Your task to perform on an android device: turn off airplane mode Image 0: 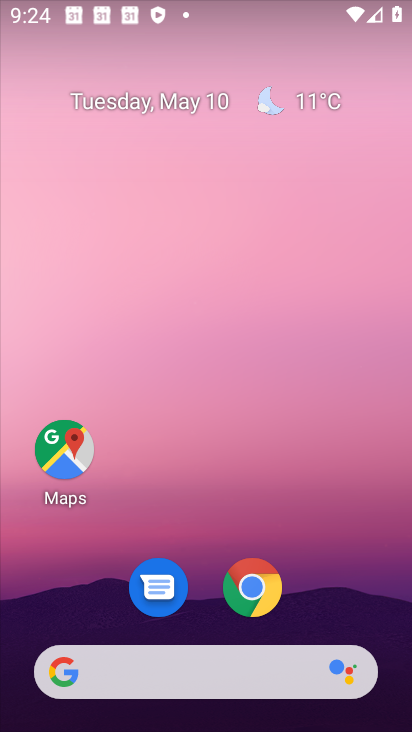
Step 0: drag from (330, 538) to (331, 158)
Your task to perform on an android device: turn off airplane mode Image 1: 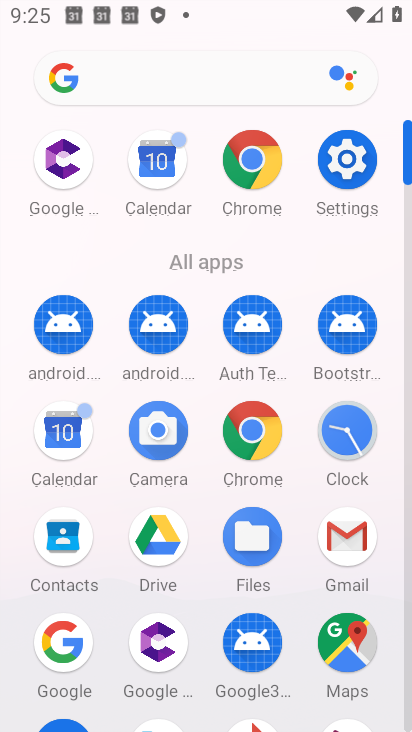
Step 1: click (361, 181)
Your task to perform on an android device: turn off airplane mode Image 2: 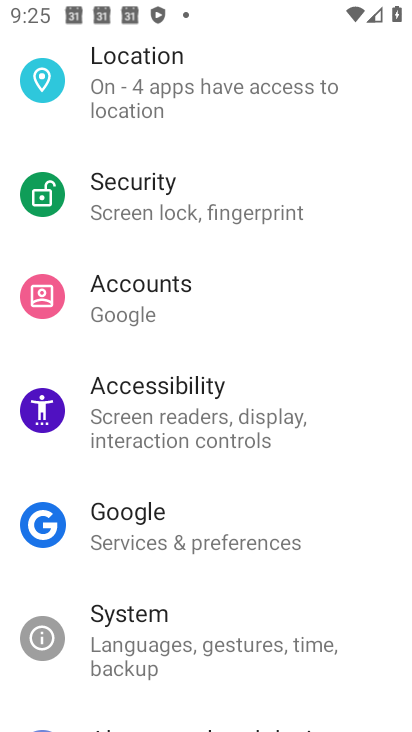
Step 2: drag from (327, 171) to (295, 575)
Your task to perform on an android device: turn off airplane mode Image 3: 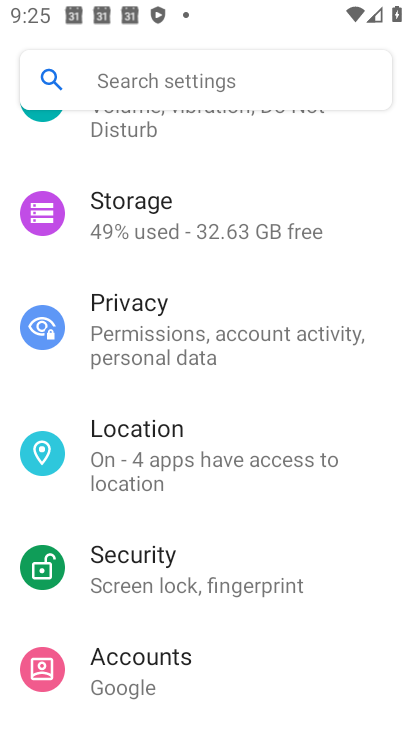
Step 3: drag from (322, 227) to (301, 635)
Your task to perform on an android device: turn off airplane mode Image 4: 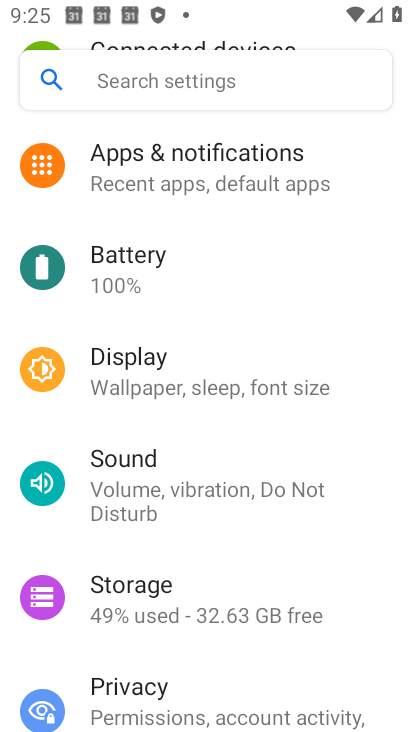
Step 4: drag from (324, 209) to (293, 589)
Your task to perform on an android device: turn off airplane mode Image 5: 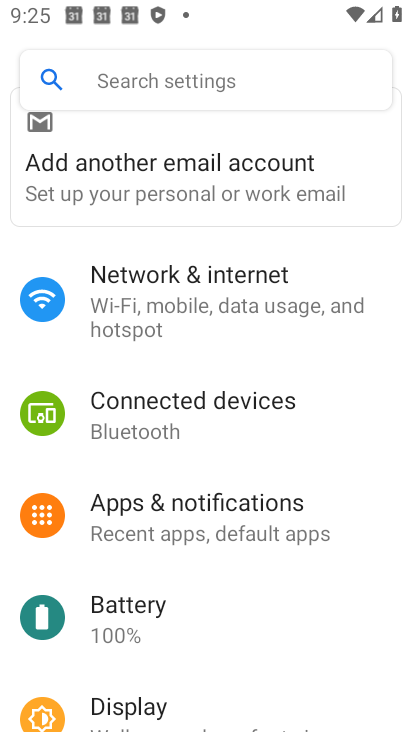
Step 5: click (303, 318)
Your task to perform on an android device: turn off airplane mode Image 6: 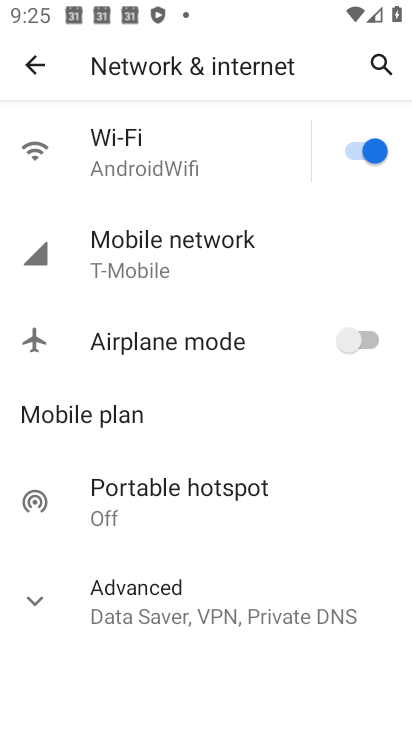
Step 6: task complete